Your task to perform on an android device: Open Google Chrome and open the bookmarks view Image 0: 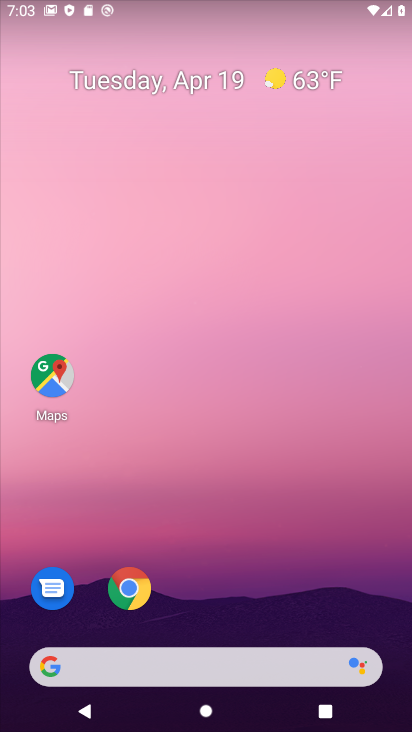
Step 0: click (133, 603)
Your task to perform on an android device: Open Google Chrome and open the bookmarks view Image 1: 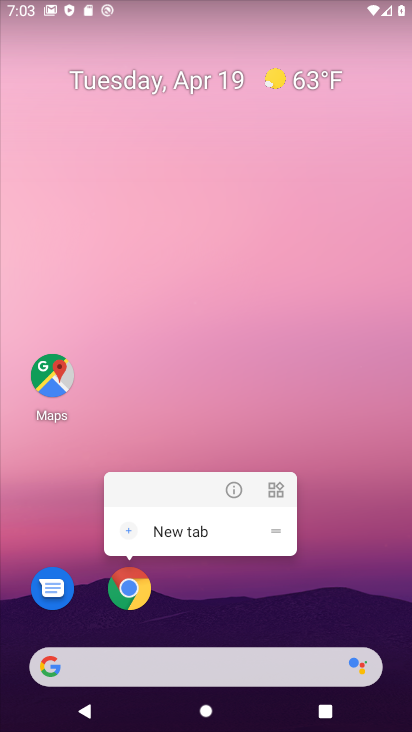
Step 1: click (131, 585)
Your task to perform on an android device: Open Google Chrome and open the bookmarks view Image 2: 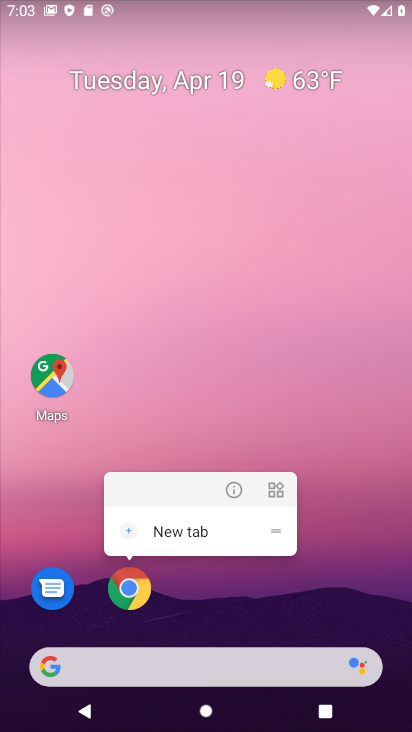
Step 2: click (131, 585)
Your task to perform on an android device: Open Google Chrome and open the bookmarks view Image 3: 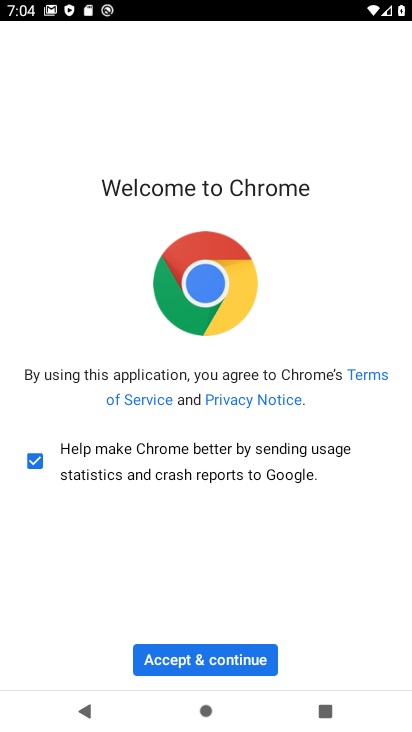
Step 3: click (217, 673)
Your task to perform on an android device: Open Google Chrome and open the bookmarks view Image 4: 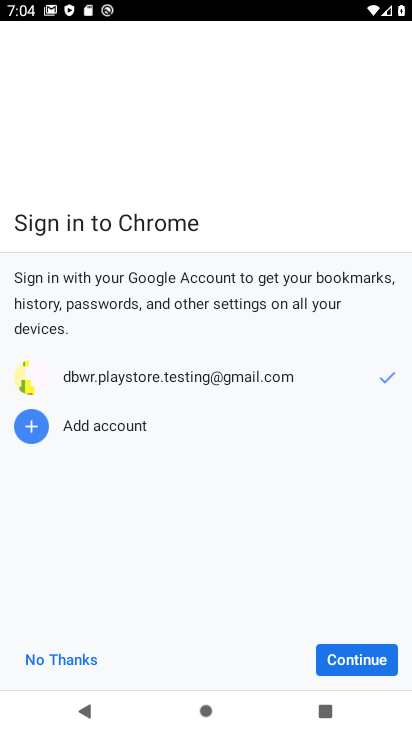
Step 4: click (356, 664)
Your task to perform on an android device: Open Google Chrome and open the bookmarks view Image 5: 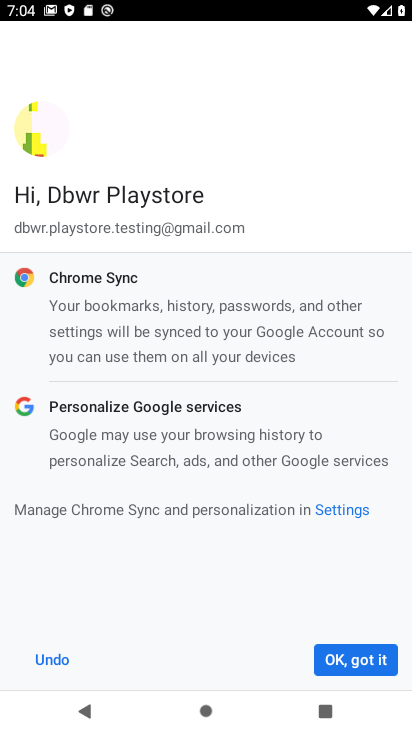
Step 5: click (365, 662)
Your task to perform on an android device: Open Google Chrome and open the bookmarks view Image 6: 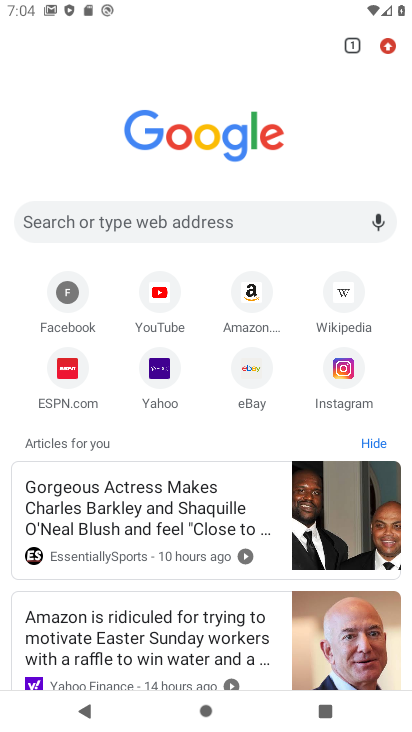
Step 6: click (382, 44)
Your task to perform on an android device: Open Google Chrome and open the bookmarks view Image 7: 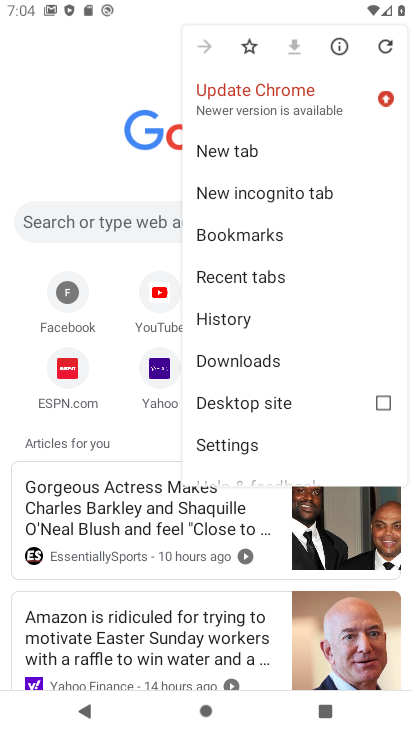
Step 7: click (243, 238)
Your task to perform on an android device: Open Google Chrome and open the bookmarks view Image 8: 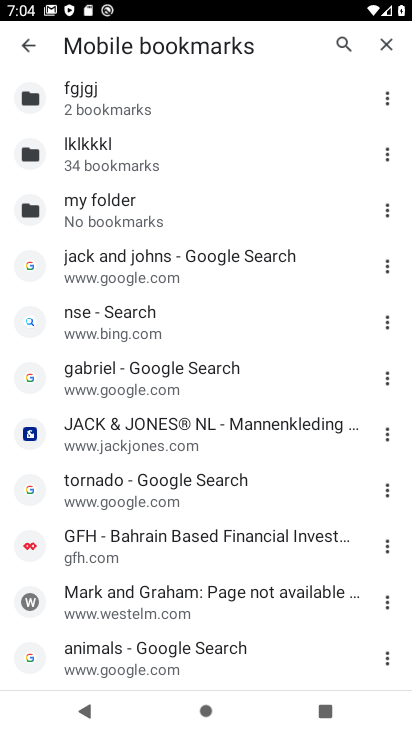
Step 8: click (100, 85)
Your task to perform on an android device: Open Google Chrome and open the bookmarks view Image 9: 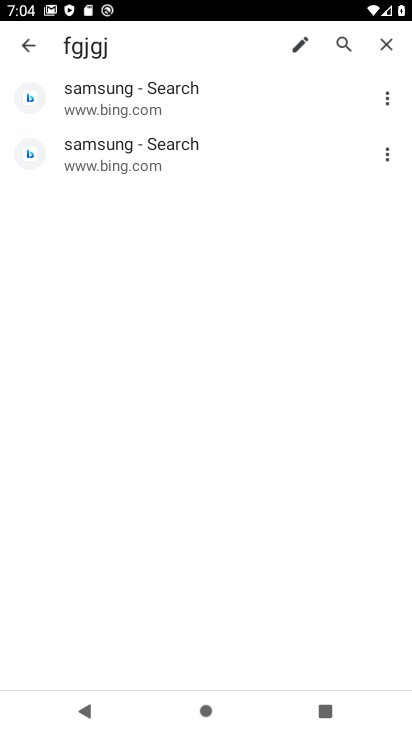
Step 9: task complete